Your task to perform on an android device: Open accessibility settings Image 0: 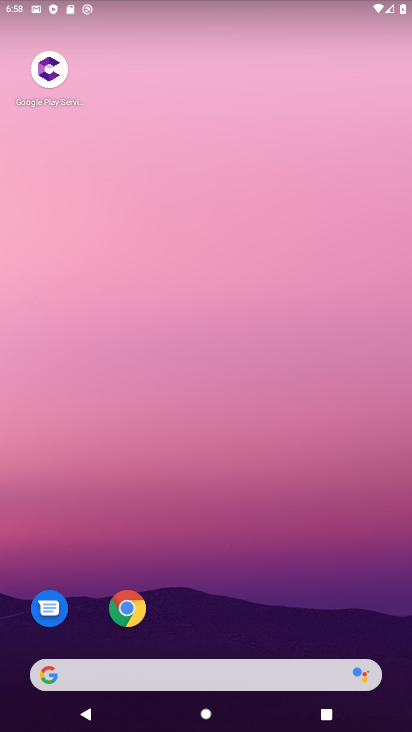
Step 0: drag from (271, 530) to (220, 53)
Your task to perform on an android device: Open accessibility settings Image 1: 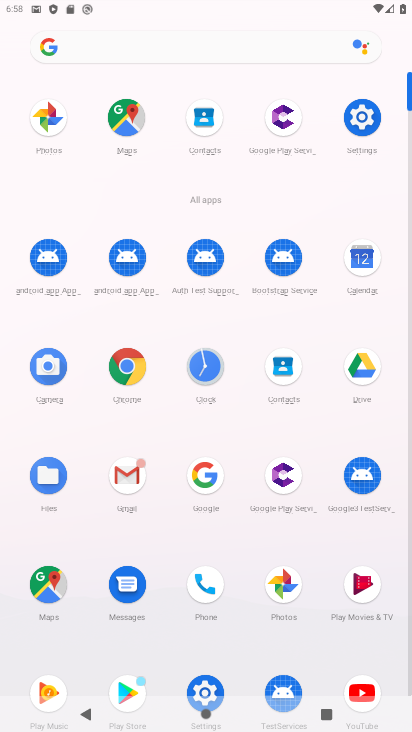
Step 1: click (356, 124)
Your task to perform on an android device: Open accessibility settings Image 2: 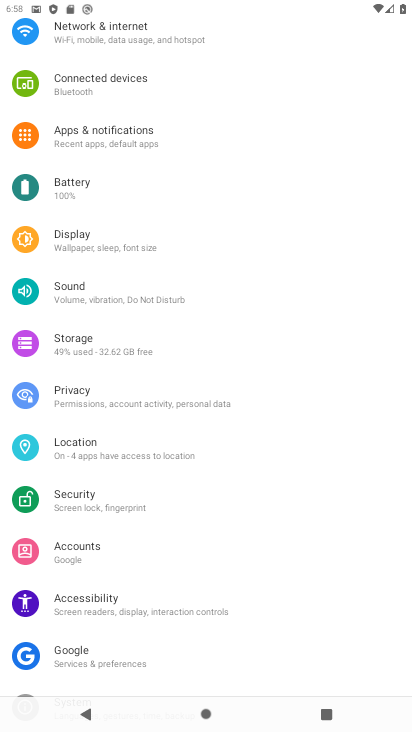
Step 2: click (78, 595)
Your task to perform on an android device: Open accessibility settings Image 3: 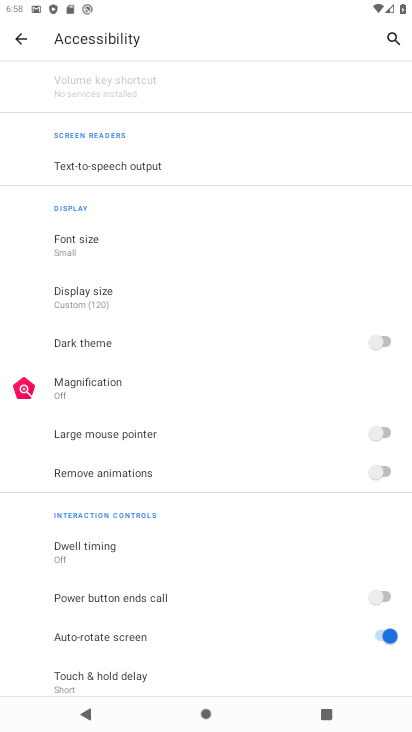
Step 3: task complete